Your task to perform on an android device: Go to Reddit.com Image 0: 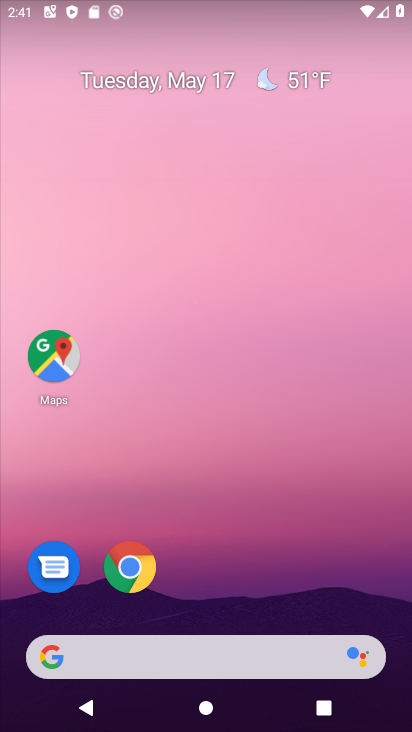
Step 0: click (121, 587)
Your task to perform on an android device: Go to Reddit.com Image 1: 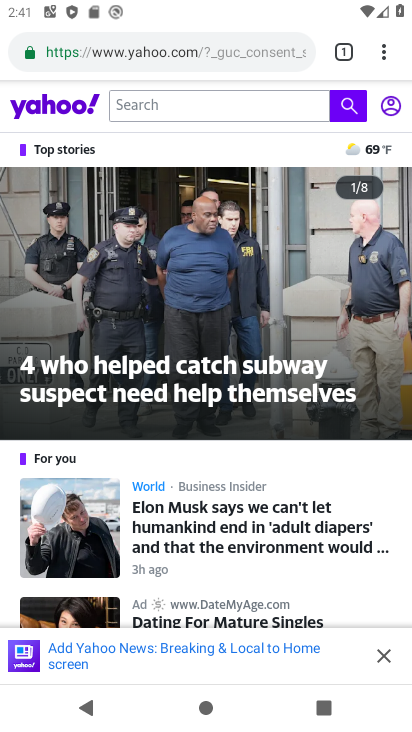
Step 1: click (158, 37)
Your task to perform on an android device: Go to Reddit.com Image 2: 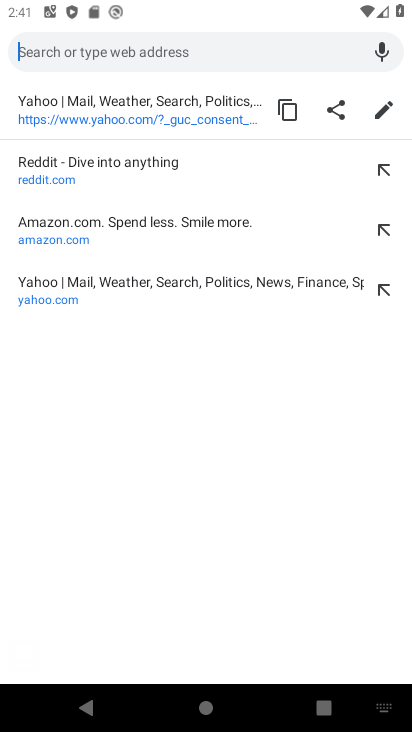
Step 2: click (103, 171)
Your task to perform on an android device: Go to Reddit.com Image 3: 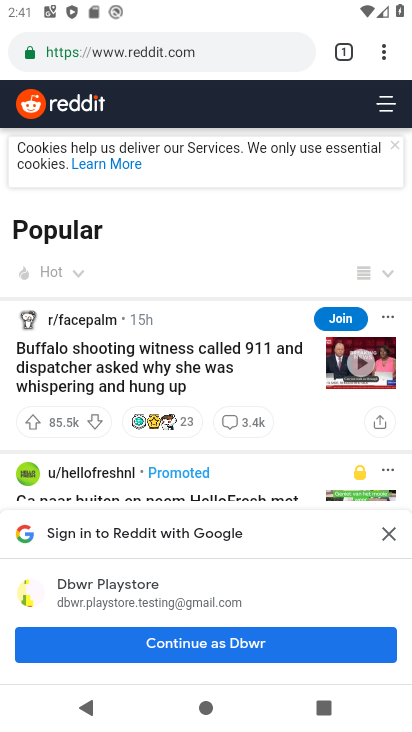
Step 3: task complete